Your task to perform on an android device: change the clock display to analog Image 0: 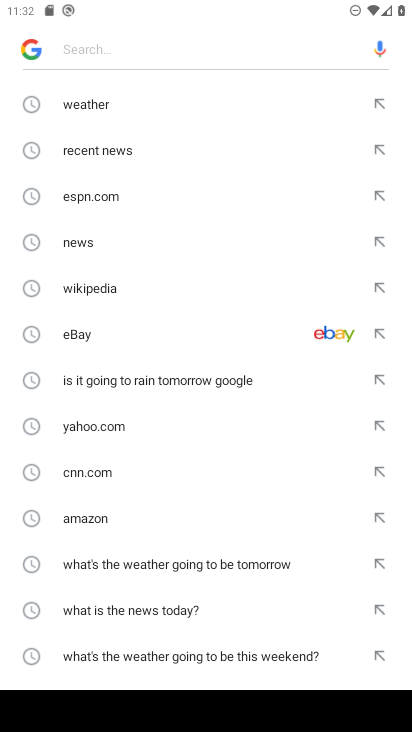
Step 0: press home button
Your task to perform on an android device: change the clock display to analog Image 1: 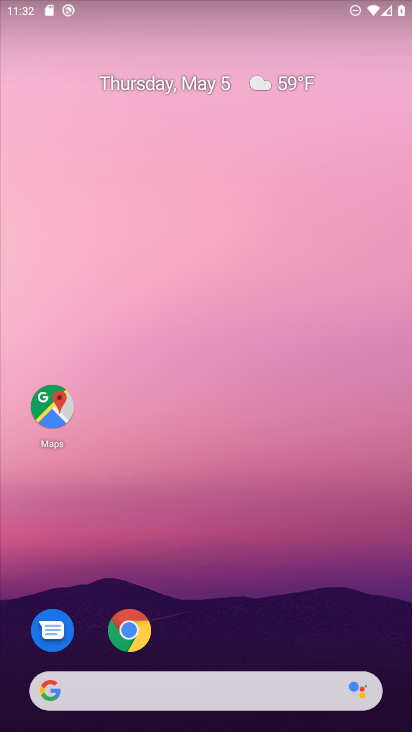
Step 1: drag from (258, 597) to (265, 85)
Your task to perform on an android device: change the clock display to analog Image 2: 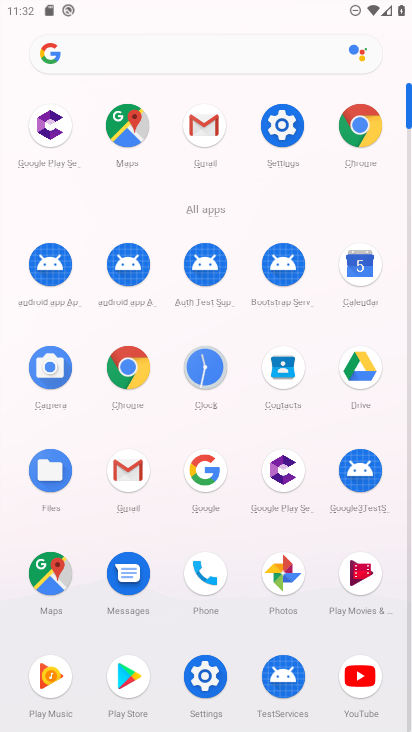
Step 2: click (199, 362)
Your task to perform on an android device: change the clock display to analog Image 3: 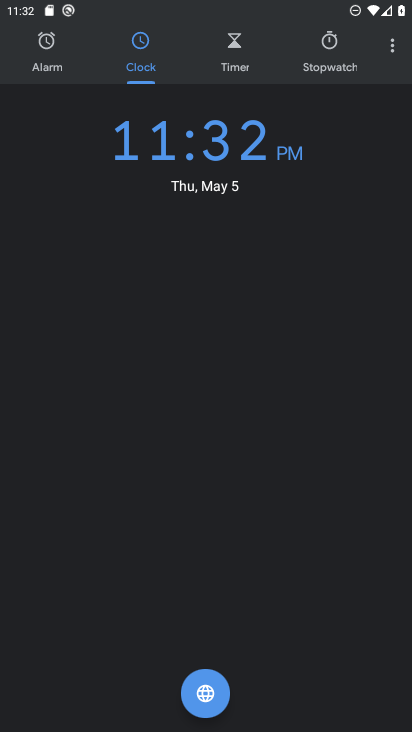
Step 3: click (396, 53)
Your task to perform on an android device: change the clock display to analog Image 4: 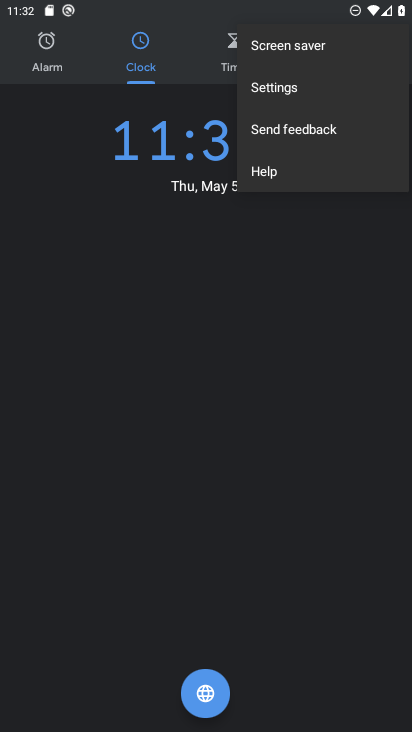
Step 4: click (293, 95)
Your task to perform on an android device: change the clock display to analog Image 5: 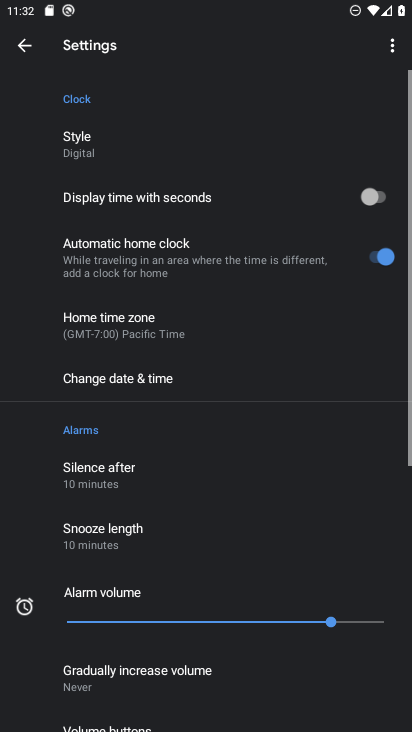
Step 5: click (93, 149)
Your task to perform on an android device: change the clock display to analog Image 6: 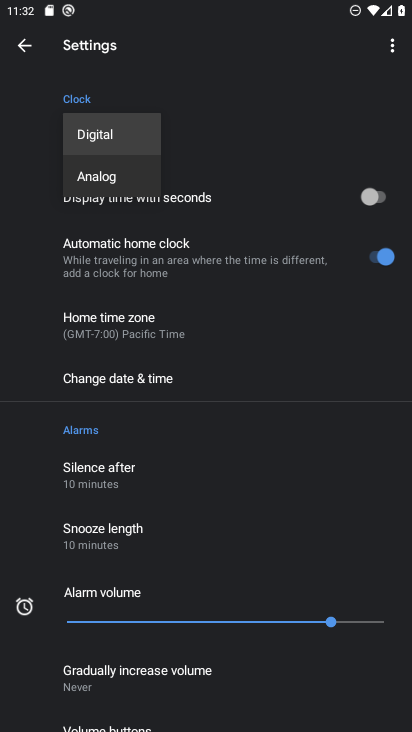
Step 6: click (84, 175)
Your task to perform on an android device: change the clock display to analog Image 7: 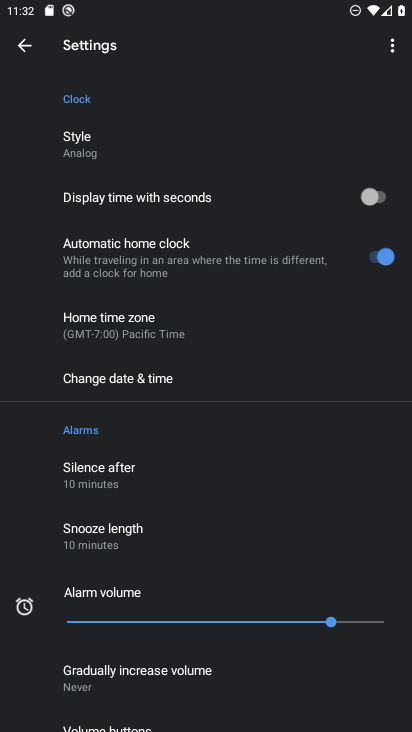
Step 7: task complete